Your task to perform on an android device: change your default location settings in chrome Image 0: 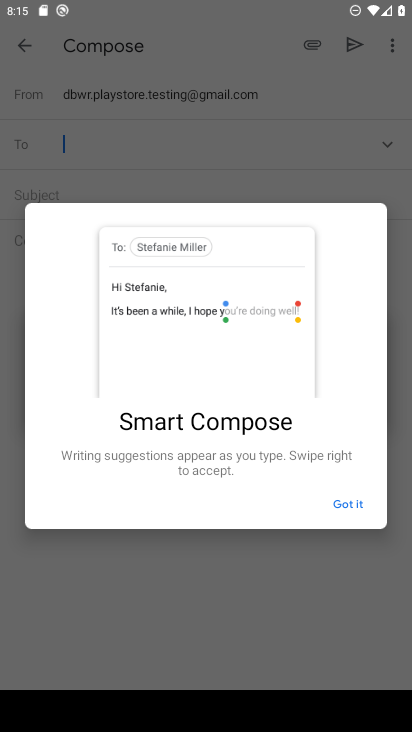
Step 0: press home button
Your task to perform on an android device: change your default location settings in chrome Image 1: 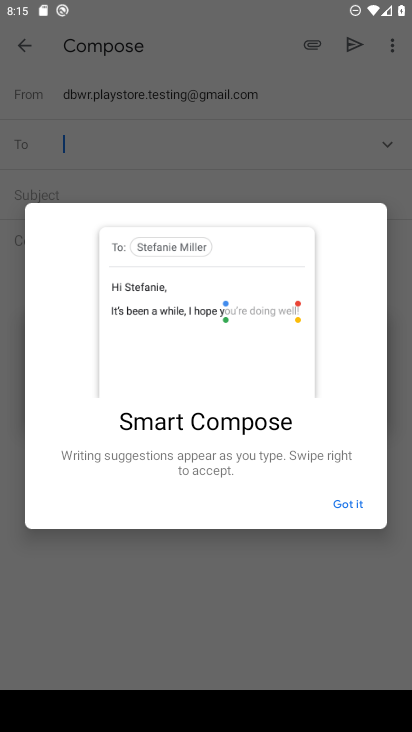
Step 1: press home button
Your task to perform on an android device: change your default location settings in chrome Image 2: 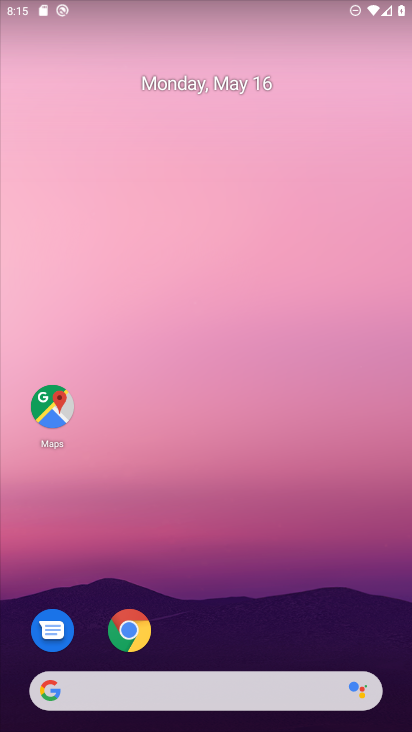
Step 2: drag from (304, 557) to (372, 300)
Your task to perform on an android device: change your default location settings in chrome Image 3: 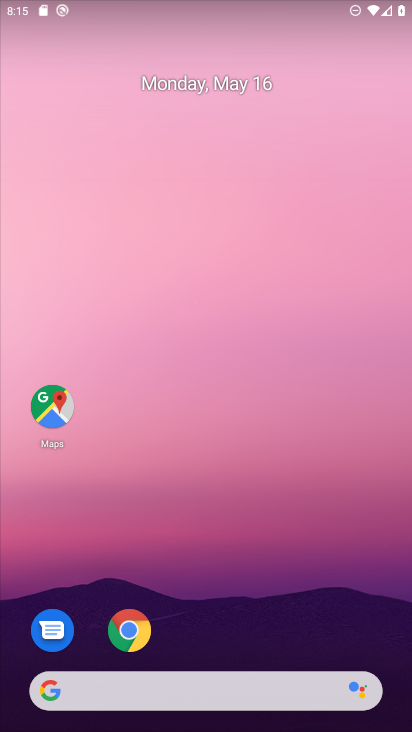
Step 3: click (130, 630)
Your task to perform on an android device: change your default location settings in chrome Image 4: 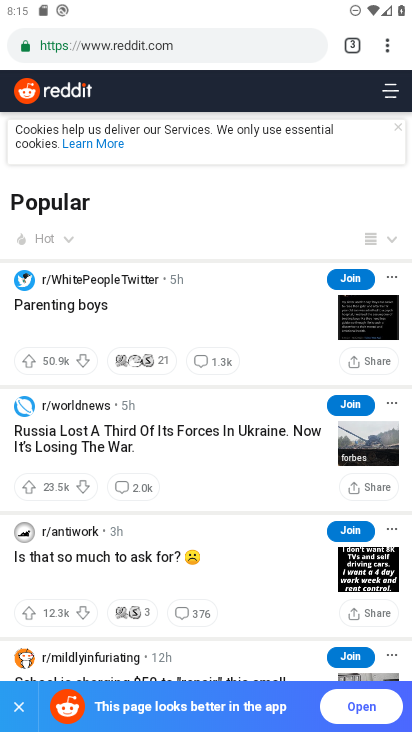
Step 4: click (380, 48)
Your task to perform on an android device: change your default location settings in chrome Image 5: 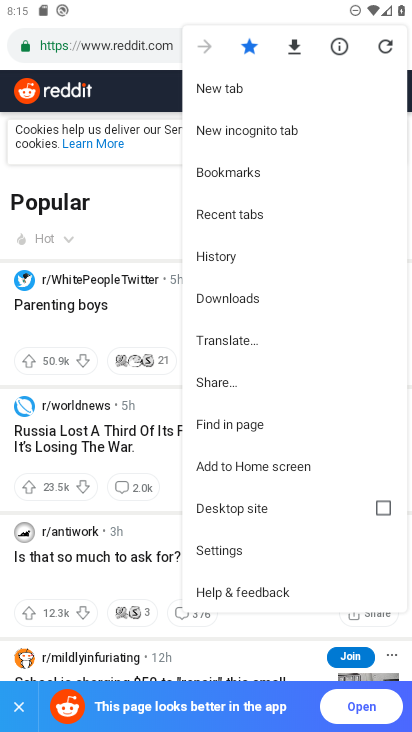
Step 5: click (323, 553)
Your task to perform on an android device: change your default location settings in chrome Image 6: 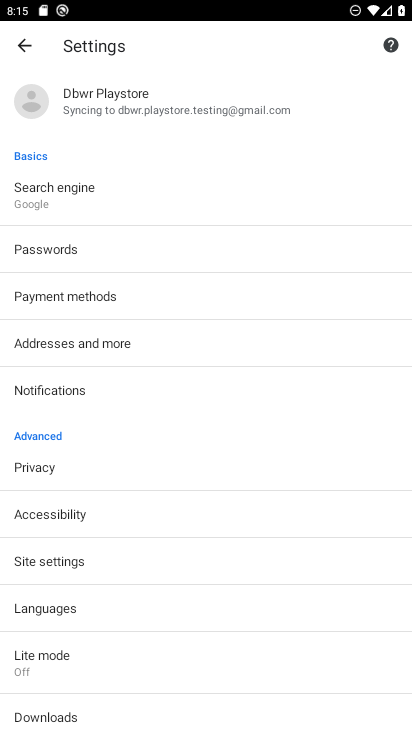
Step 6: drag from (171, 574) to (174, 152)
Your task to perform on an android device: change your default location settings in chrome Image 7: 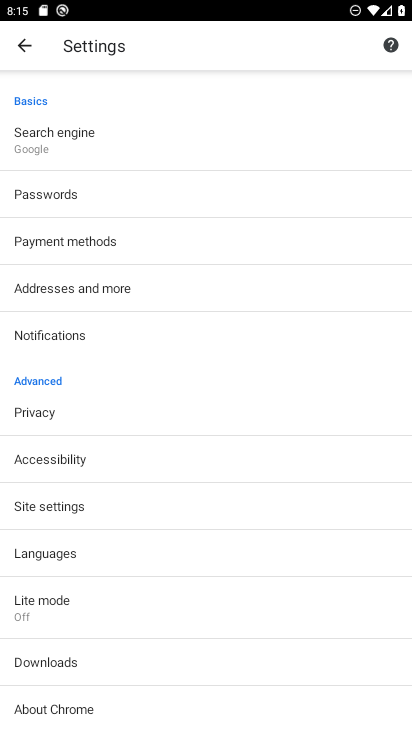
Step 7: drag from (258, 306) to (263, 689)
Your task to perform on an android device: change your default location settings in chrome Image 8: 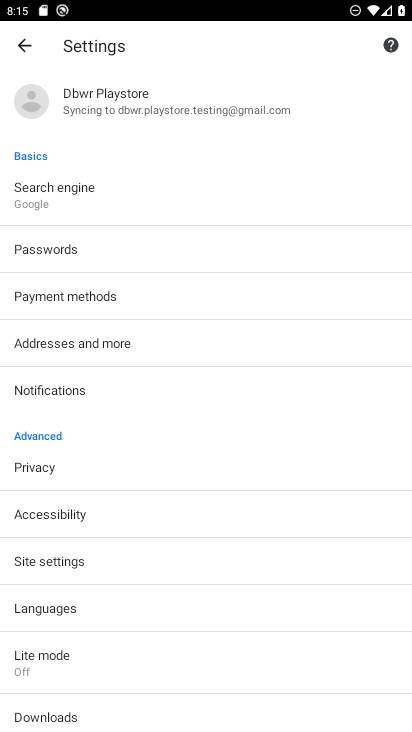
Step 8: drag from (172, 532) to (236, 69)
Your task to perform on an android device: change your default location settings in chrome Image 9: 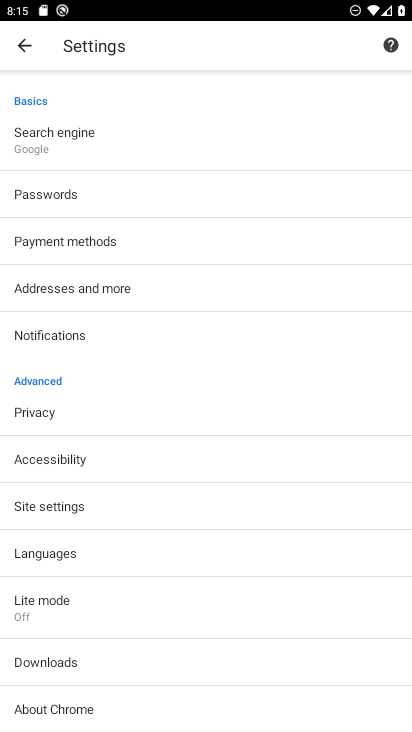
Step 9: click (241, 503)
Your task to perform on an android device: change your default location settings in chrome Image 10: 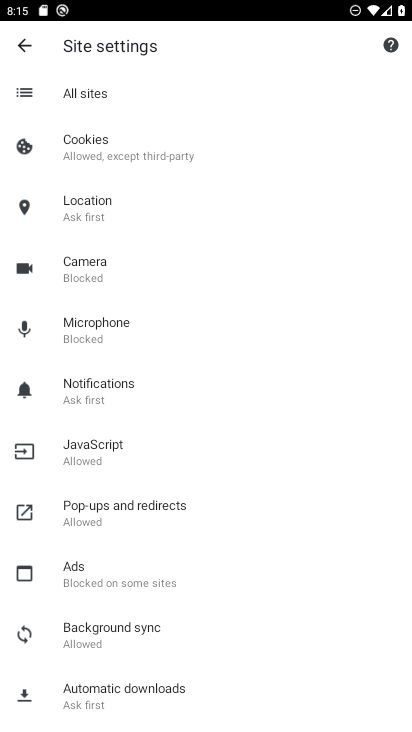
Step 10: click (164, 213)
Your task to perform on an android device: change your default location settings in chrome Image 11: 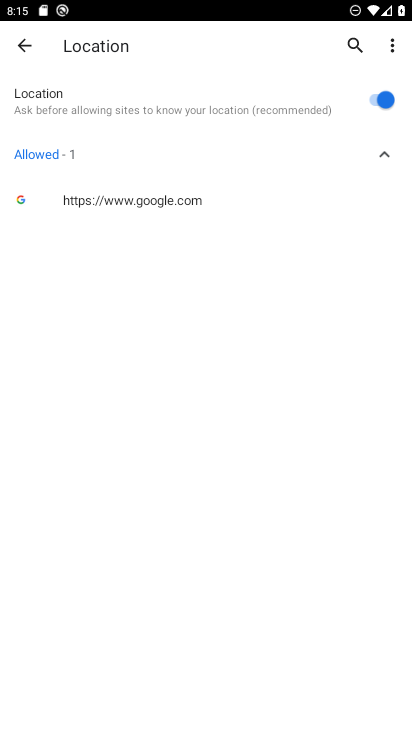
Step 11: click (388, 97)
Your task to perform on an android device: change your default location settings in chrome Image 12: 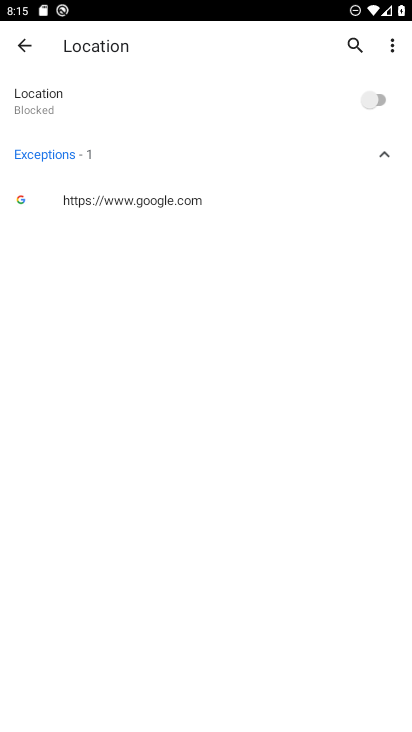
Step 12: task complete